Your task to perform on an android device: Search for pizza restaurants on Maps Image 0: 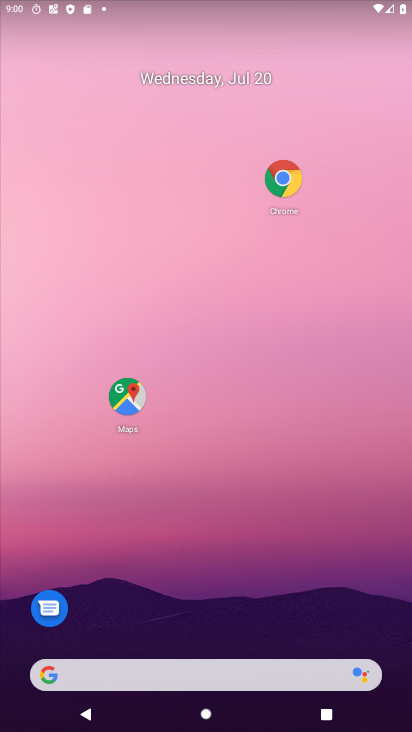
Step 0: drag from (197, 581) to (168, 96)
Your task to perform on an android device: Search for pizza restaurants on Maps Image 1: 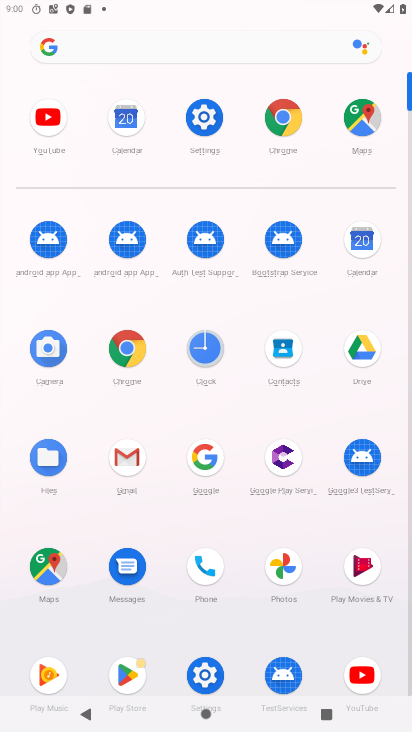
Step 1: click (19, 562)
Your task to perform on an android device: Search for pizza restaurants on Maps Image 2: 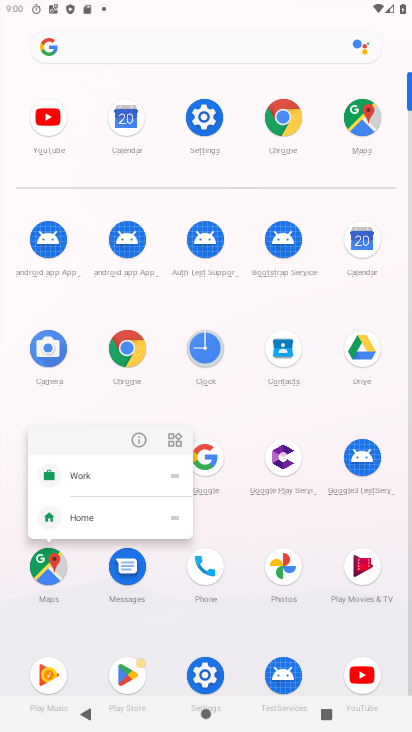
Step 2: click (51, 564)
Your task to perform on an android device: Search for pizza restaurants on Maps Image 3: 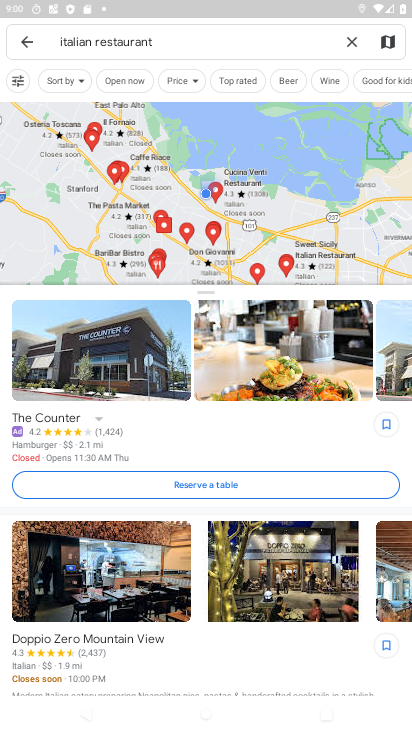
Step 3: click (349, 37)
Your task to perform on an android device: Search for pizza restaurants on Maps Image 4: 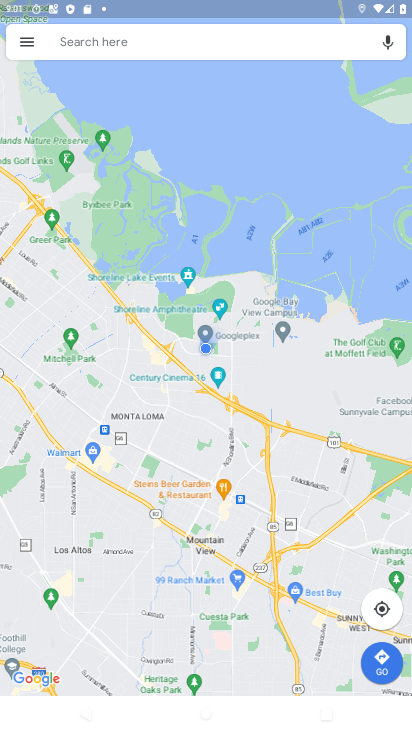
Step 4: click (95, 39)
Your task to perform on an android device: Search for pizza restaurants on Maps Image 5: 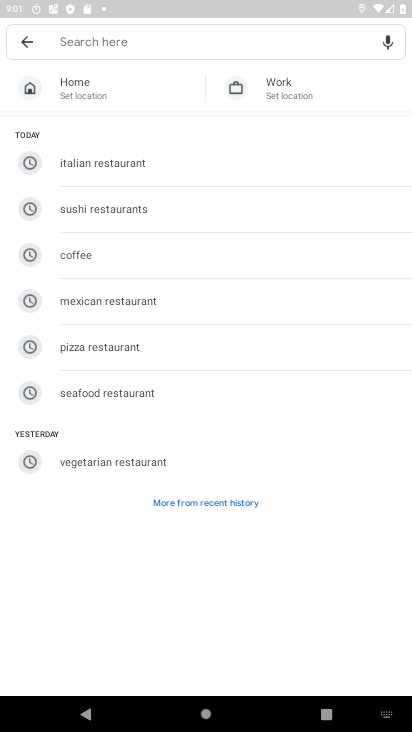
Step 5: type "pizza restaurants "
Your task to perform on an android device: Search for pizza restaurants on Maps Image 6: 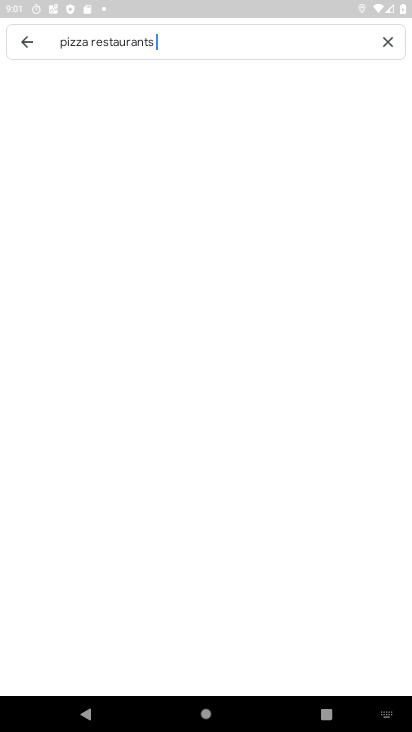
Step 6: type ""
Your task to perform on an android device: Search for pizza restaurants on Maps Image 7: 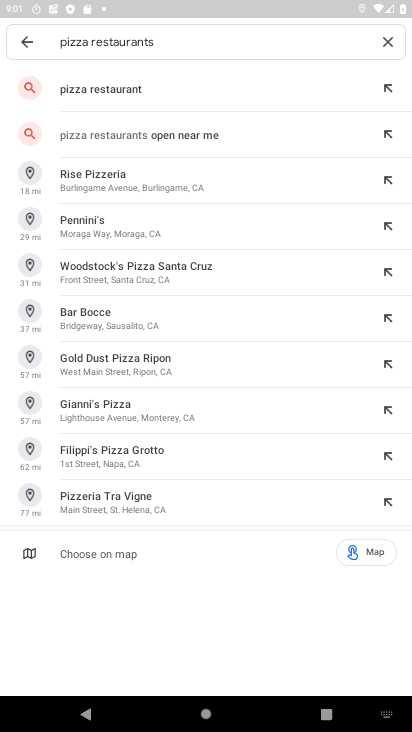
Step 7: click (165, 97)
Your task to perform on an android device: Search for pizza restaurants on Maps Image 8: 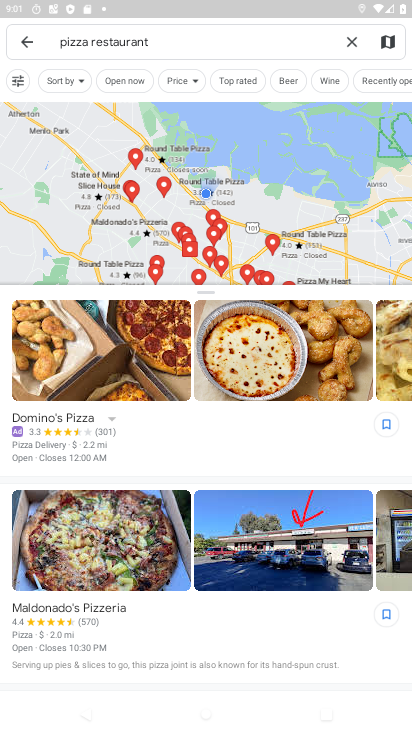
Step 8: task complete